Your task to perform on an android device: toggle sleep mode Image 0: 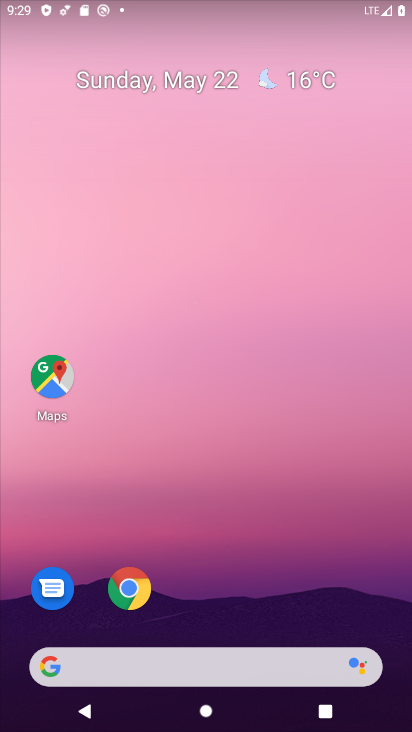
Step 0: drag from (236, 608) to (225, 150)
Your task to perform on an android device: toggle sleep mode Image 1: 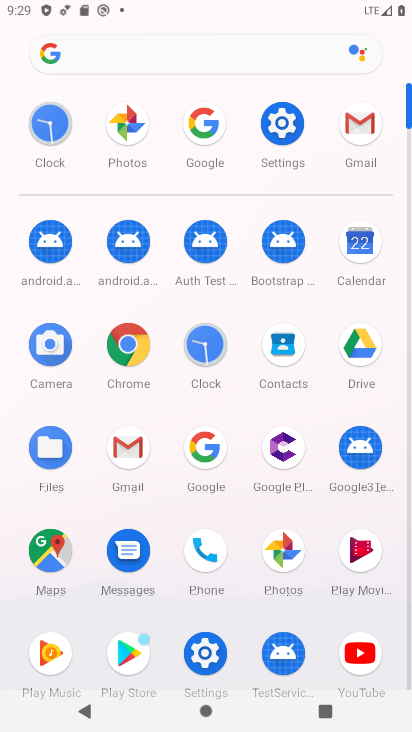
Step 1: click (278, 118)
Your task to perform on an android device: toggle sleep mode Image 2: 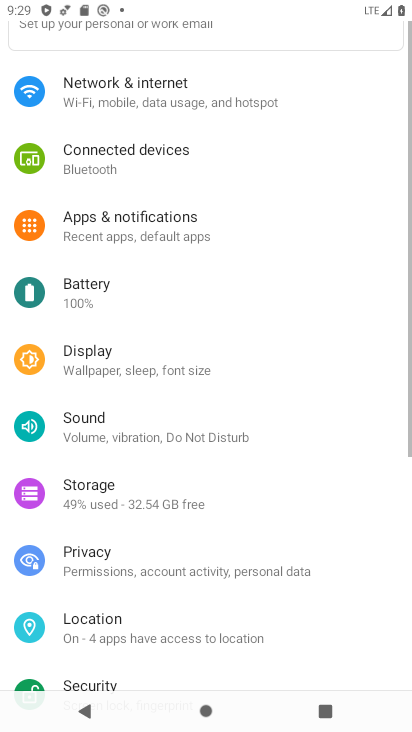
Step 2: drag from (212, 129) to (219, 477)
Your task to perform on an android device: toggle sleep mode Image 3: 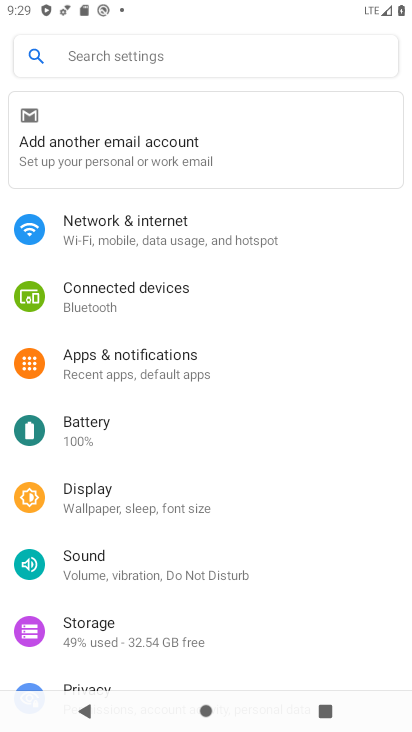
Step 3: click (117, 504)
Your task to perform on an android device: toggle sleep mode Image 4: 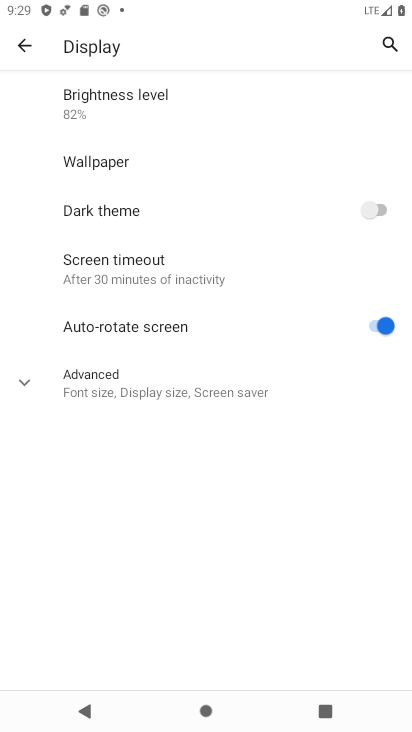
Step 4: click (165, 277)
Your task to perform on an android device: toggle sleep mode Image 5: 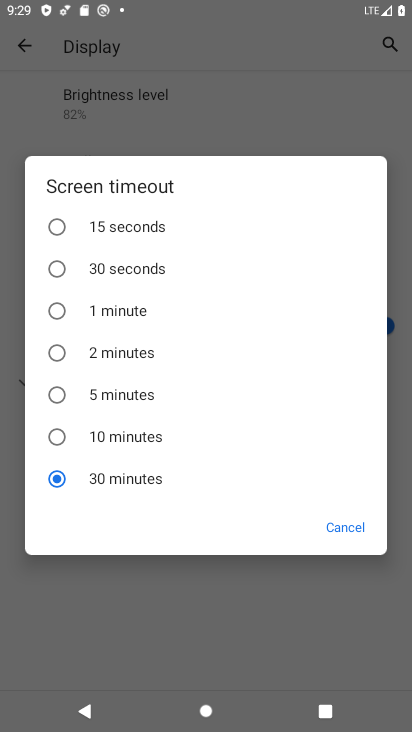
Step 5: click (165, 277)
Your task to perform on an android device: toggle sleep mode Image 6: 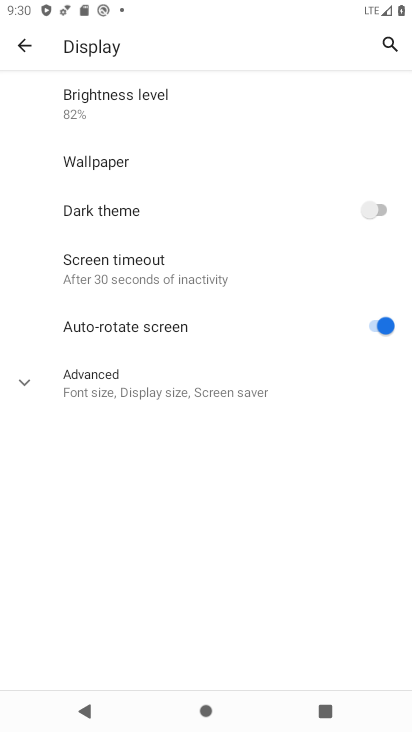
Step 6: task complete